Your task to perform on an android device: Go to location settings Image 0: 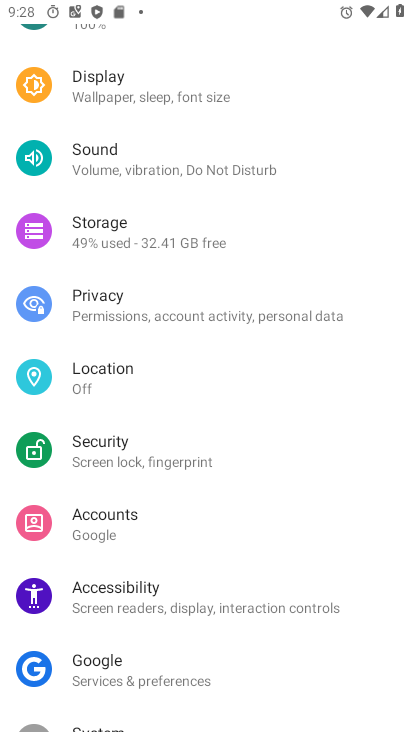
Step 0: click (101, 359)
Your task to perform on an android device: Go to location settings Image 1: 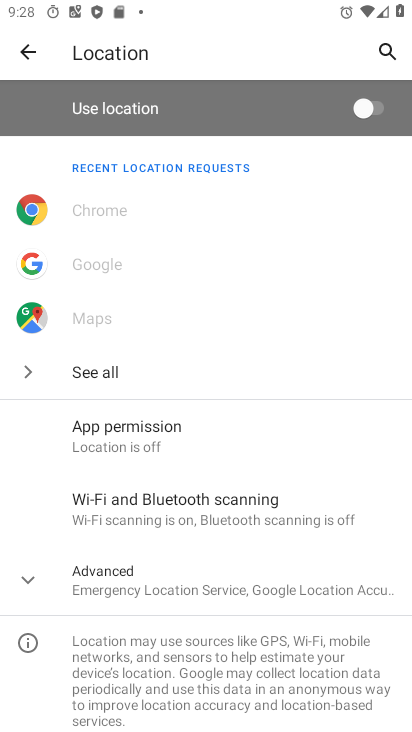
Step 1: task complete